Your task to perform on an android device: turn on airplane mode Image 0: 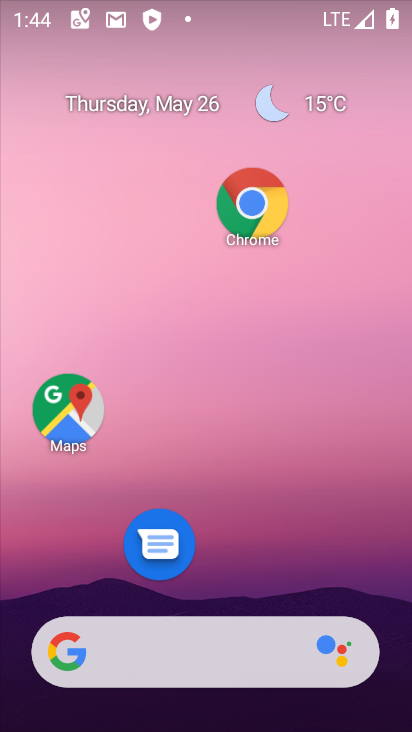
Step 0: click (312, 453)
Your task to perform on an android device: turn on airplane mode Image 1: 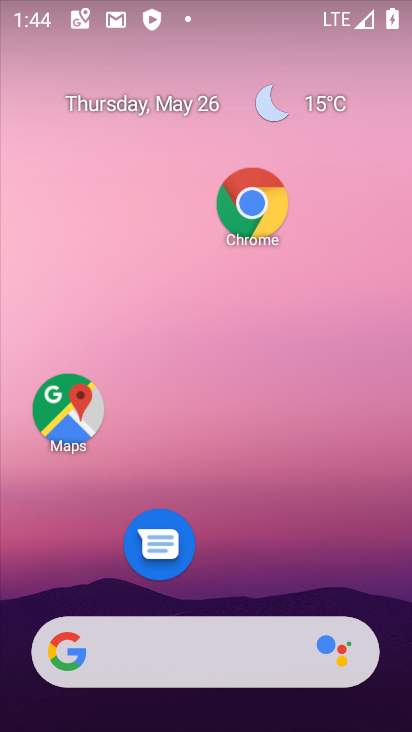
Step 1: drag from (290, 708) to (244, 162)
Your task to perform on an android device: turn on airplane mode Image 2: 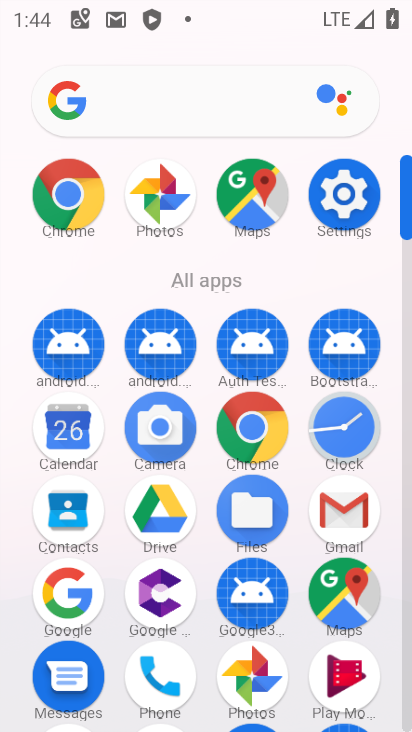
Step 2: click (335, 199)
Your task to perform on an android device: turn on airplane mode Image 3: 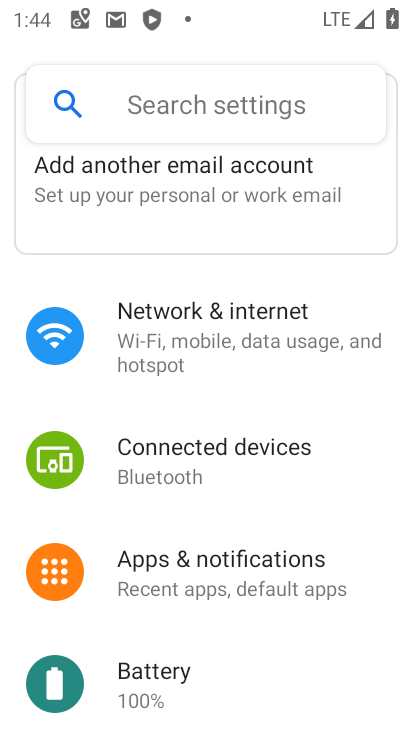
Step 3: click (260, 332)
Your task to perform on an android device: turn on airplane mode Image 4: 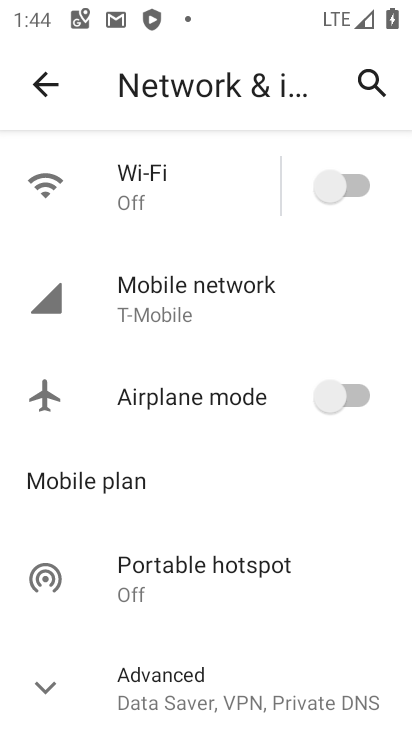
Step 4: click (351, 391)
Your task to perform on an android device: turn on airplane mode Image 5: 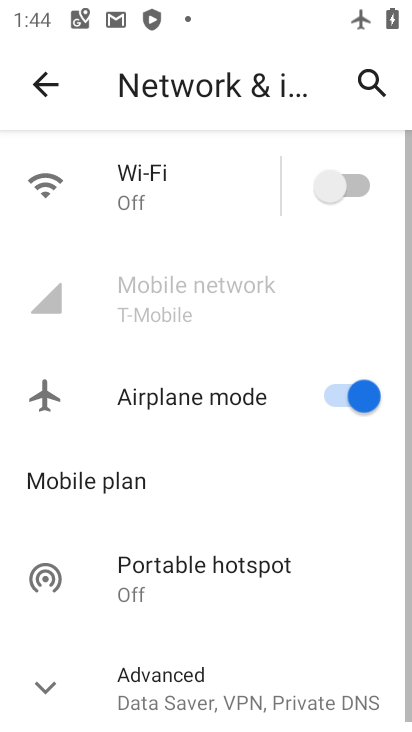
Step 5: task complete